Your task to perform on an android device: Go to internet settings Image 0: 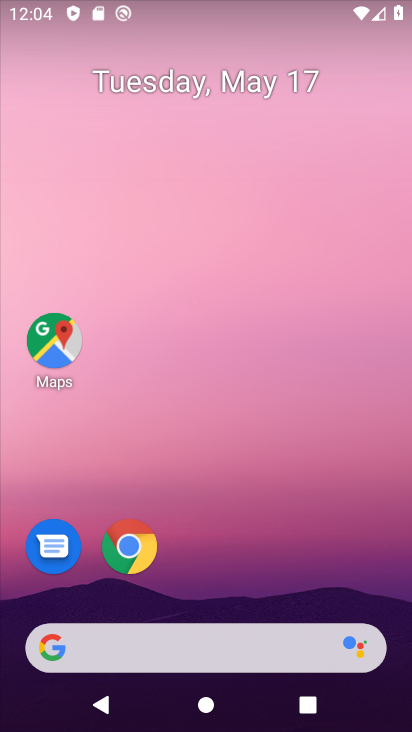
Step 0: drag from (226, 602) to (252, 82)
Your task to perform on an android device: Go to internet settings Image 1: 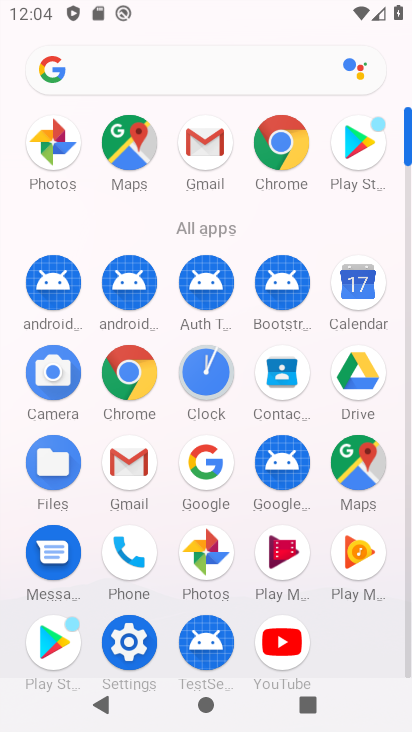
Step 1: click (127, 638)
Your task to perform on an android device: Go to internet settings Image 2: 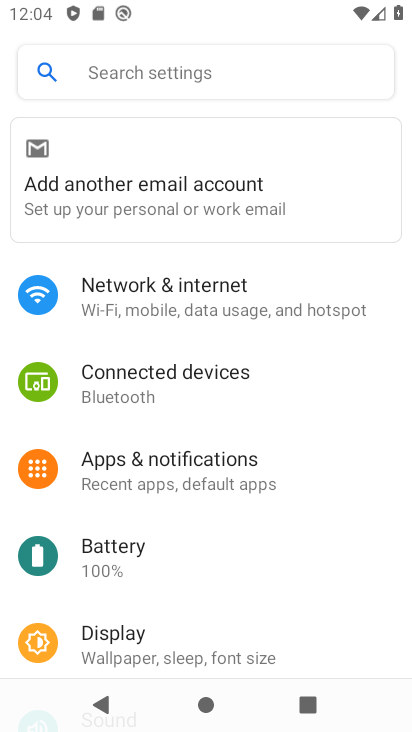
Step 2: click (255, 287)
Your task to perform on an android device: Go to internet settings Image 3: 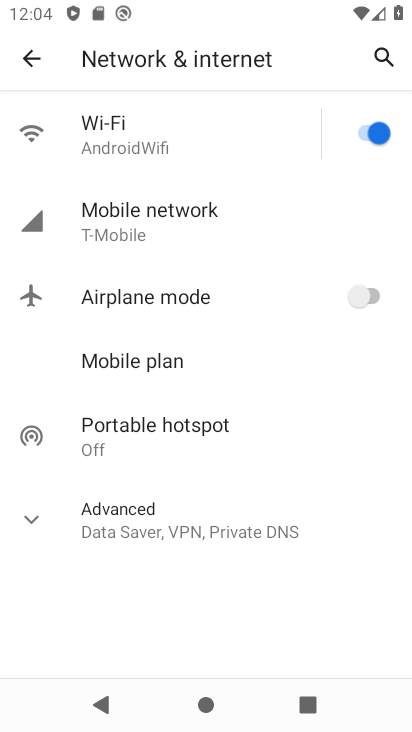
Step 3: click (40, 511)
Your task to perform on an android device: Go to internet settings Image 4: 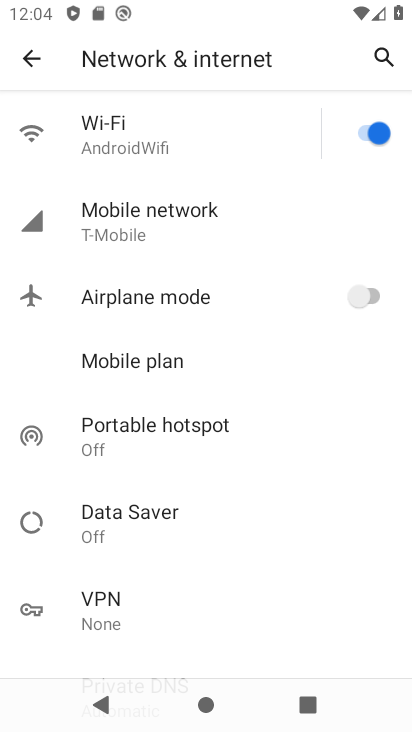
Step 4: task complete